Your task to perform on an android device: install app "Google News" Image 0: 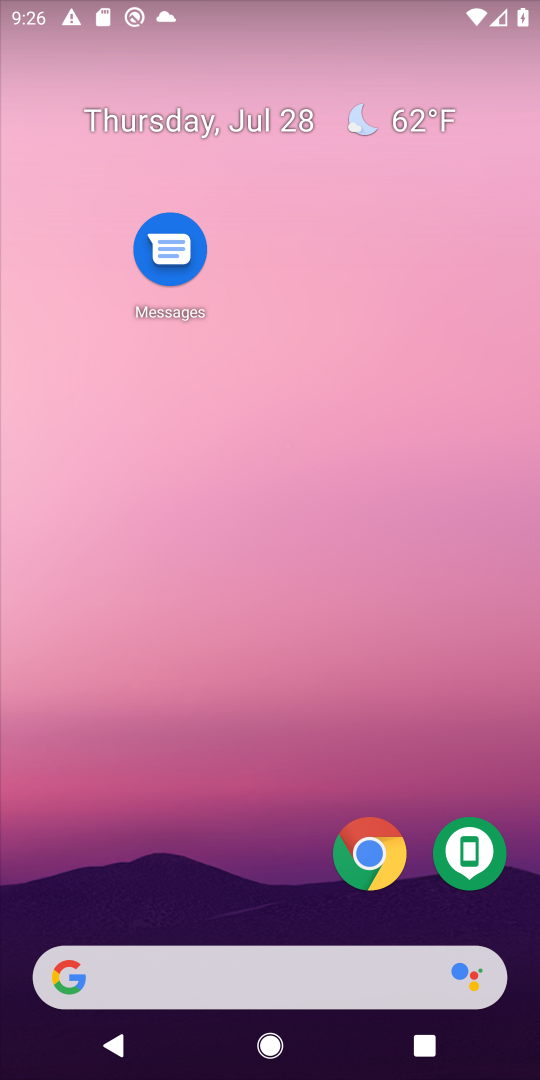
Step 0: click (258, 918)
Your task to perform on an android device: install app "Google News" Image 1: 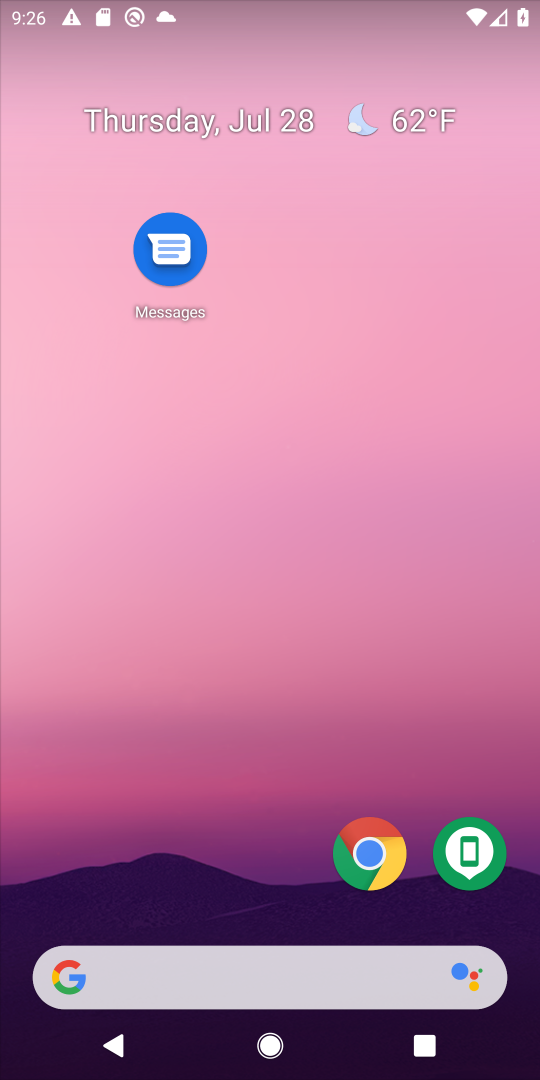
Step 1: drag from (222, 845) to (226, 204)
Your task to perform on an android device: install app "Google News" Image 2: 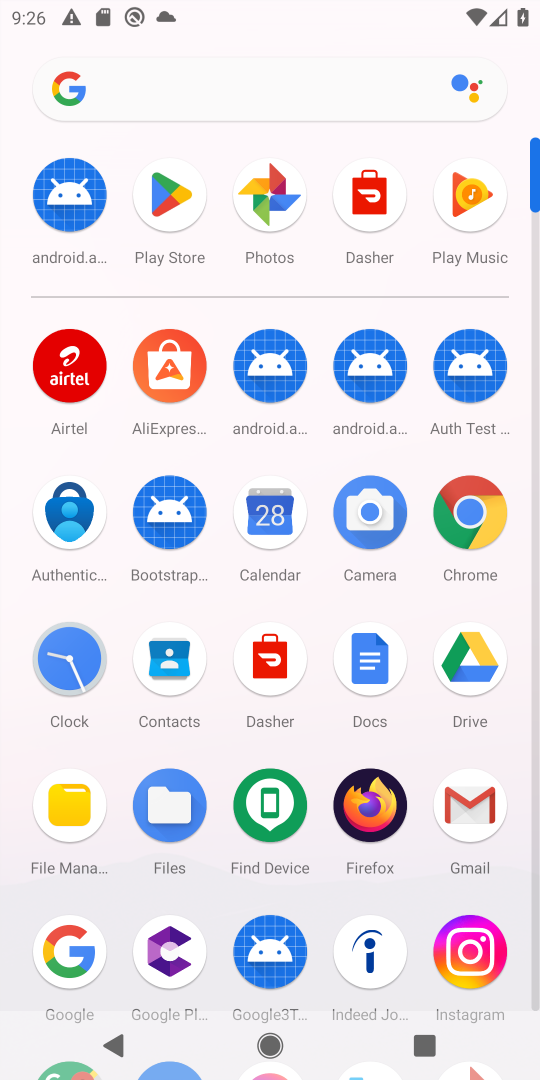
Step 2: click (183, 240)
Your task to perform on an android device: install app "Google News" Image 3: 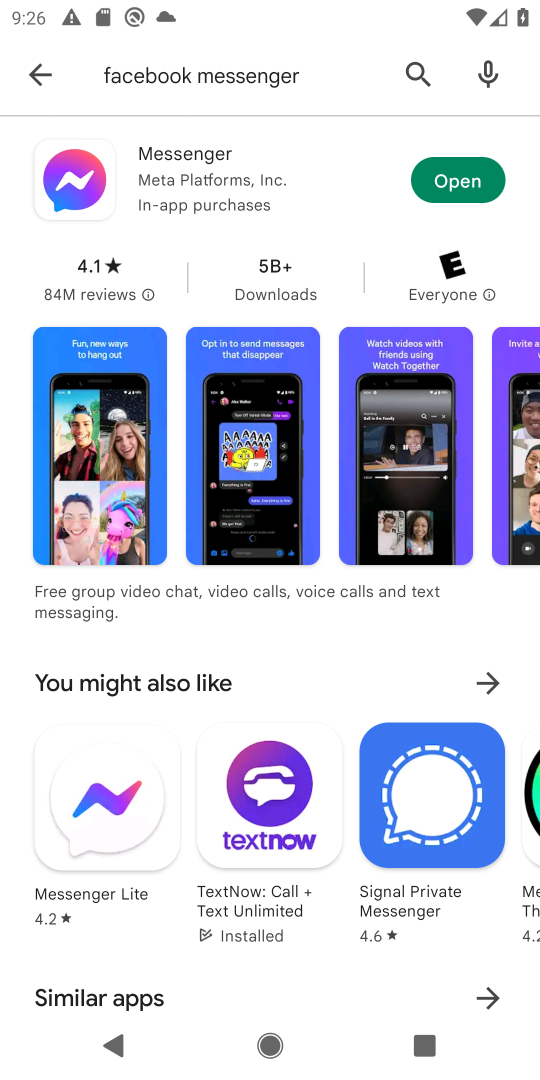
Step 3: click (37, 65)
Your task to perform on an android device: install app "Google News" Image 4: 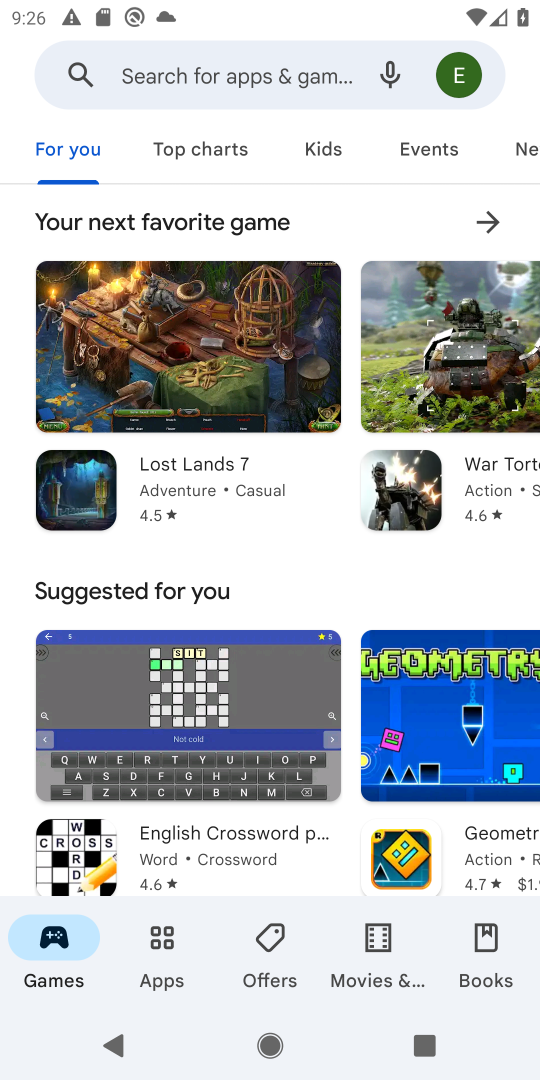
Step 4: click (189, 87)
Your task to perform on an android device: install app "Google News" Image 5: 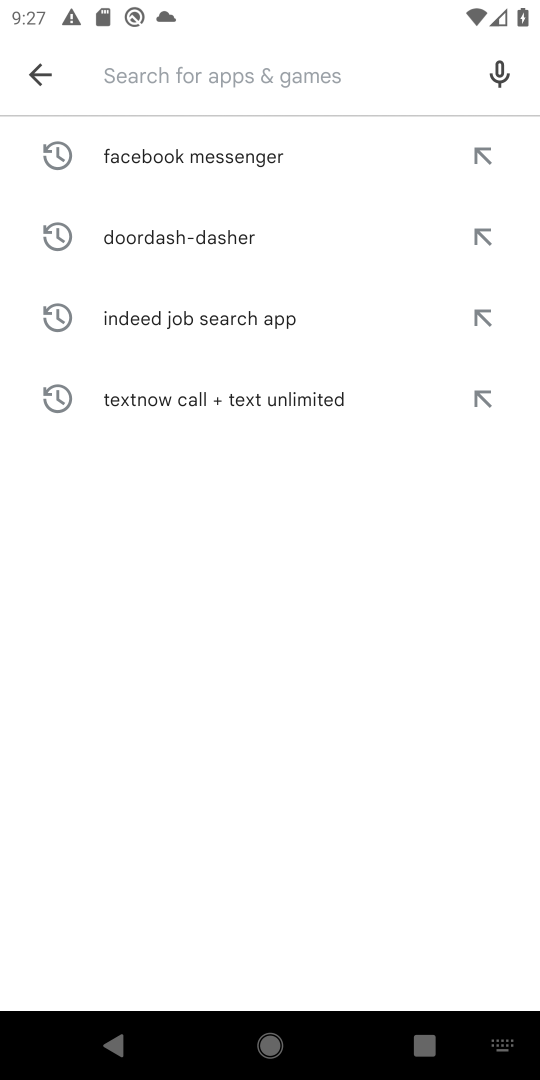
Step 5: type "Google News"
Your task to perform on an android device: install app "Google News" Image 6: 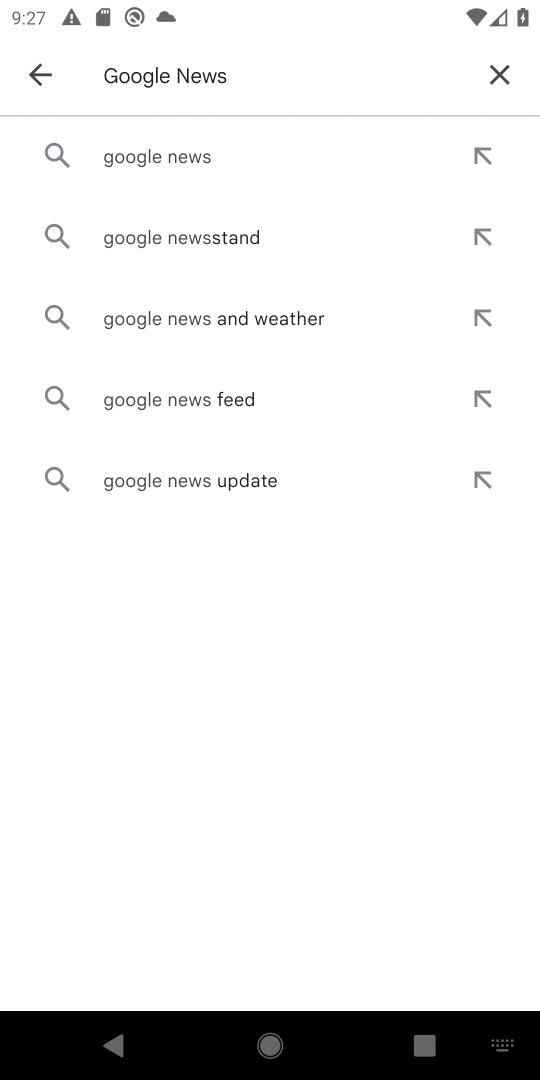
Step 6: click (144, 150)
Your task to perform on an android device: install app "Google News" Image 7: 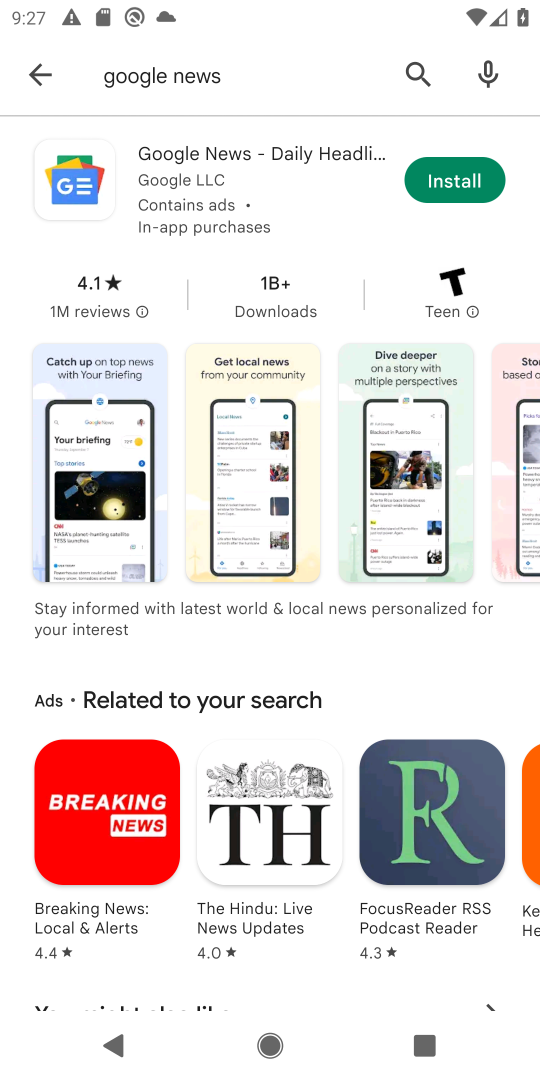
Step 7: click (450, 172)
Your task to perform on an android device: install app "Google News" Image 8: 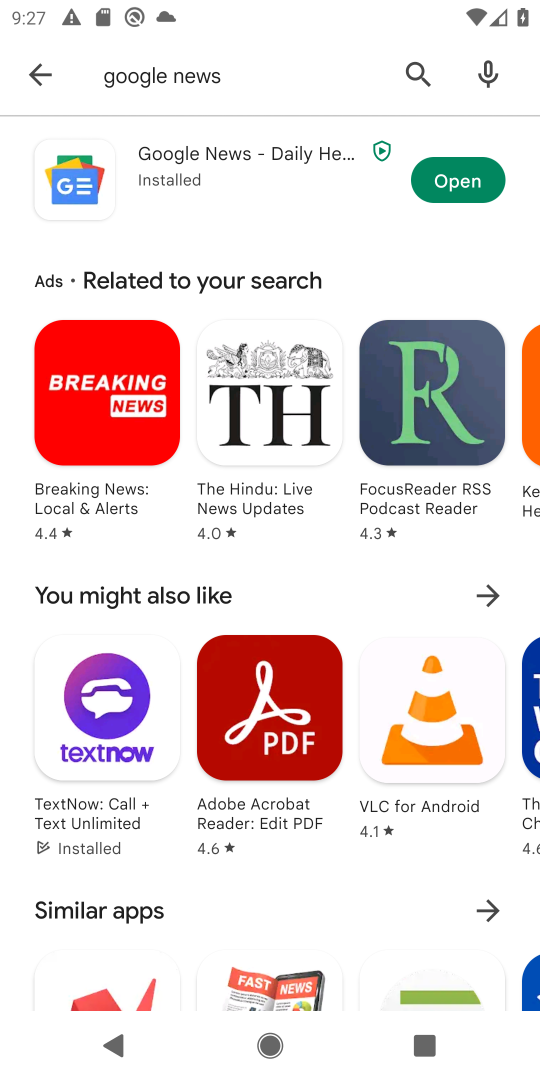
Step 8: click (450, 172)
Your task to perform on an android device: install app "Google News" Image 9: 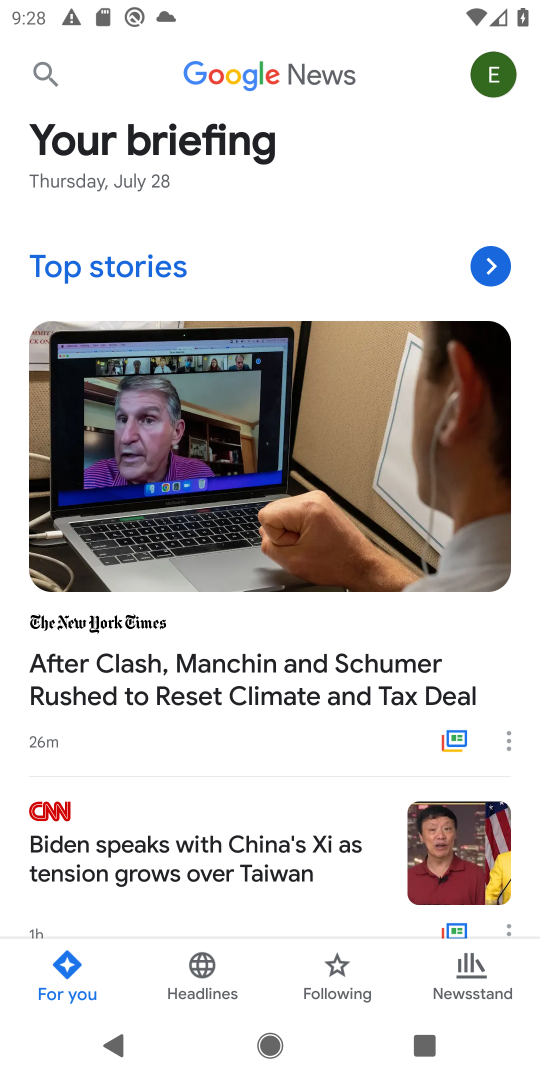
Step 9: task complete